Your task to perform on an android device: Go to sound settings Image 0: 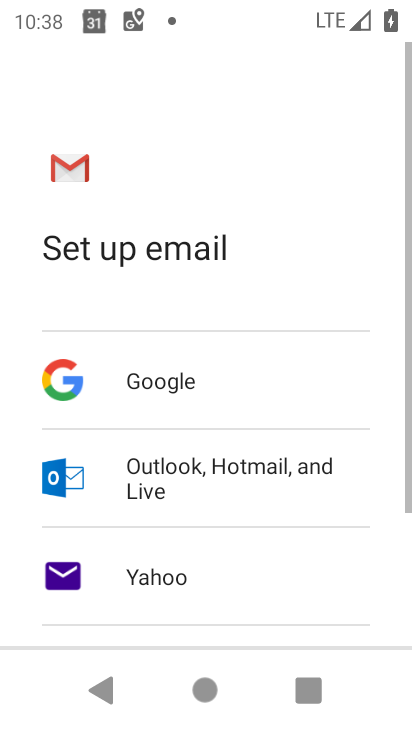
Step 0: press home button
Your task to perform on an android device: Go to sound settings Image 1: 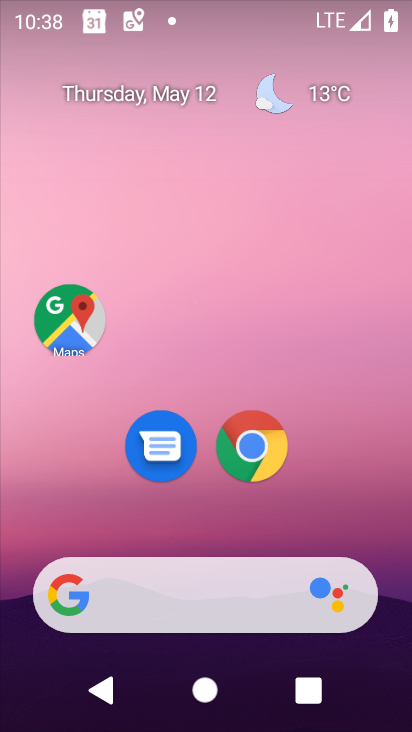
Step 1: drag from (210, 627) to (343, 5)
Your task to perform on an android device: Go to sound settings Image 2: 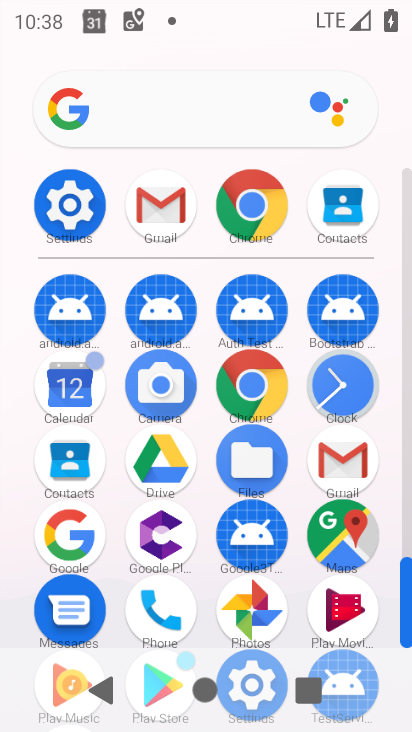
Step 2: click (74, 219)
Your task to perform on an android device: Go to sound settings Image 3: 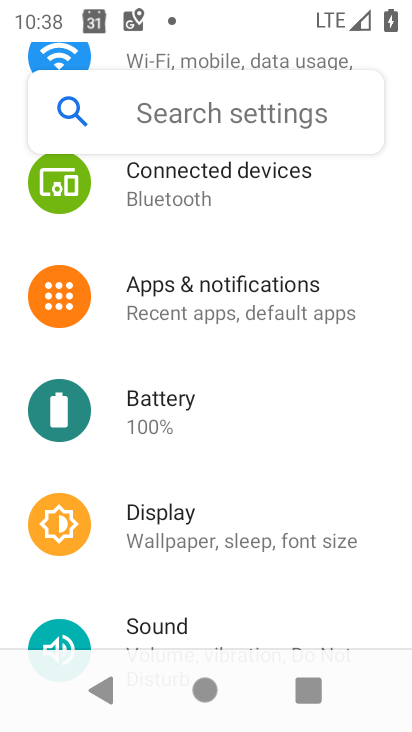
Step 3: drag from (264, 623) to (276, 381)
Your task to perform on an android device: Go to sound settings Image 4: 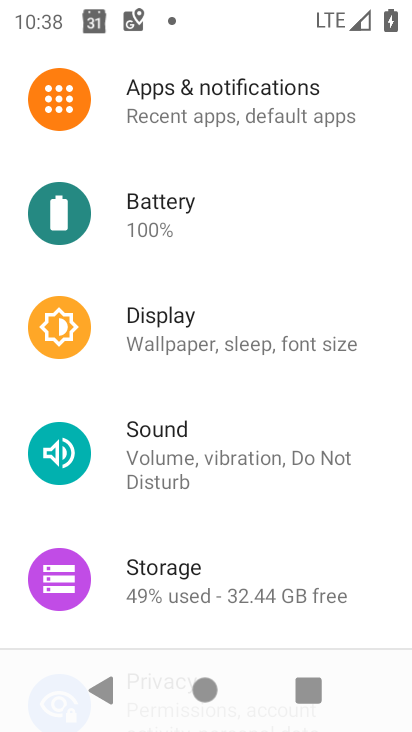
Step 4: click (255, 453)
Your task to perform on an android device: Go to sound settings Image 5: 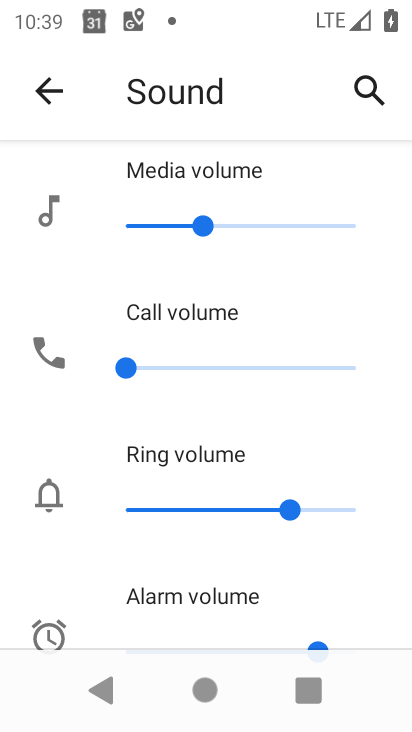
Step 5: task complete